Your task to perform on an android device: Go to accessibility settings Image 0: 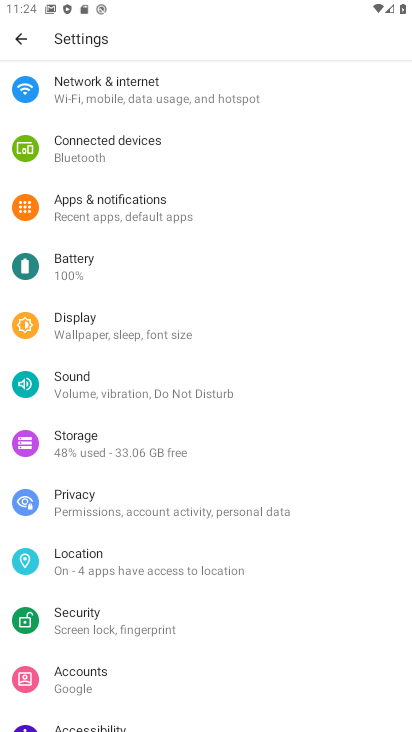
Step 0: press home button
Your task to perform on an android device: Go to accessibility settings Image 1: 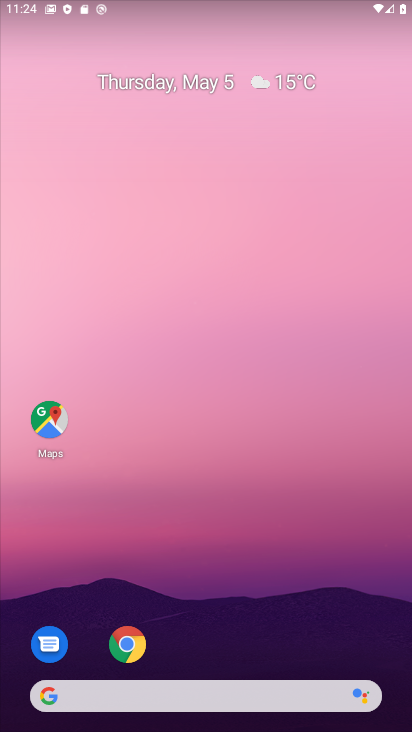
Step 1: drag from (168, 620) to (265, 107)
Your task to perform on an android device: Go to accessibility settings Image 2: 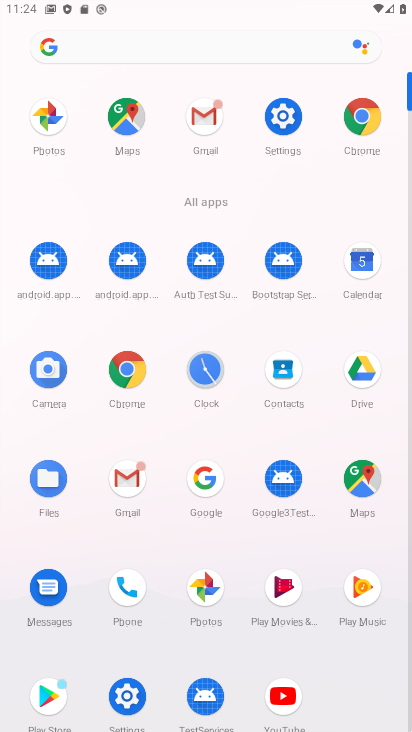
Step 2: click (290, 114)
Your task to perform on an android device: Go to accessibility settings Image 3: 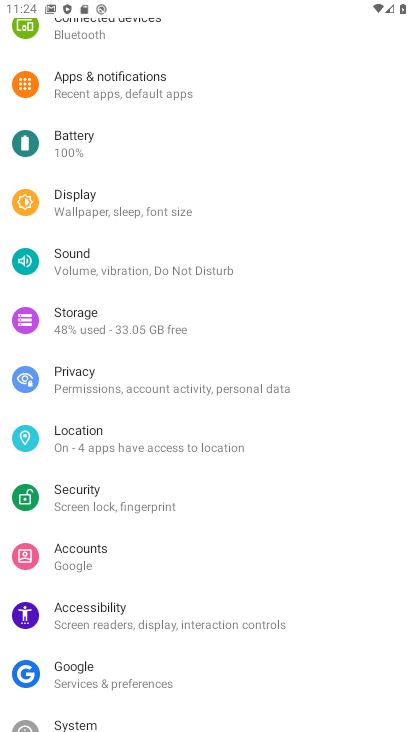
Step 3: click (157, 633)
Your task to perform on an android device: Go to accessibility settings Image 4: 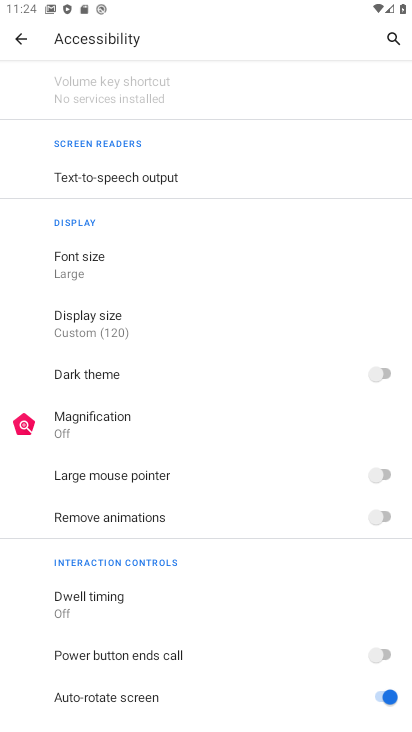
Step 4: task complete